Your task to perform on an android device: What's the weather? Image 0: 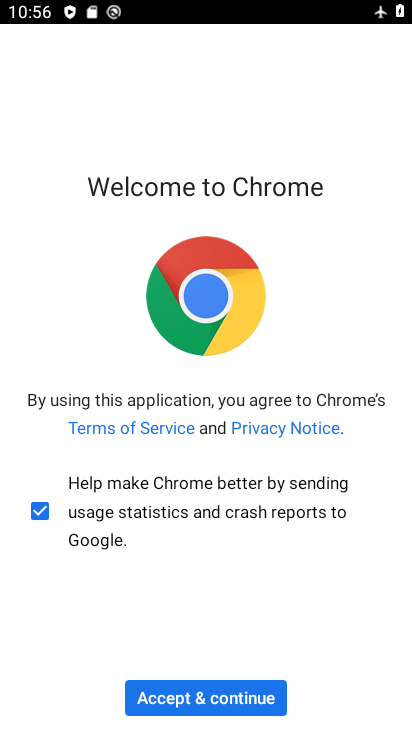
Step 0: press home button
Your task to perform on an android device: What's the weather? Image 1: 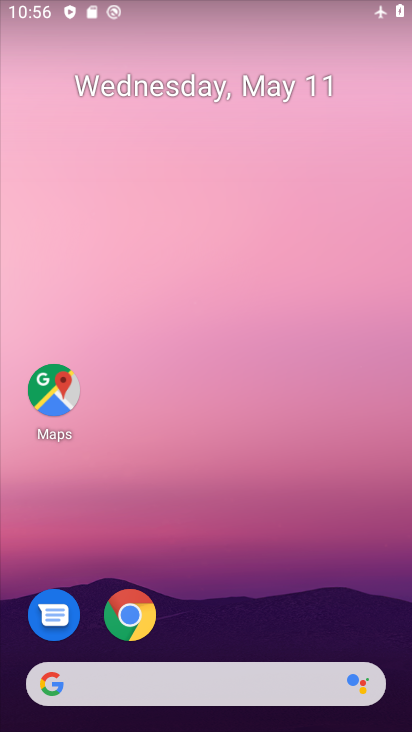
Step 1: click (209, 684)
Your task to perform on an android device: What's the weather? Image 2: 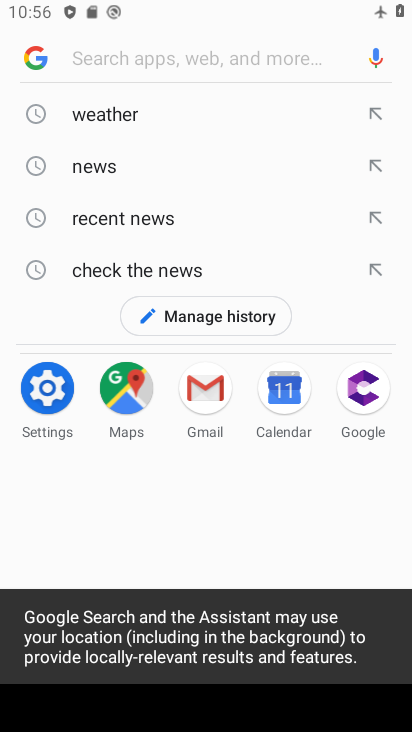
Step 2: click (117, 115)
Your task to perform on an android device: What's the weather? Image 3: 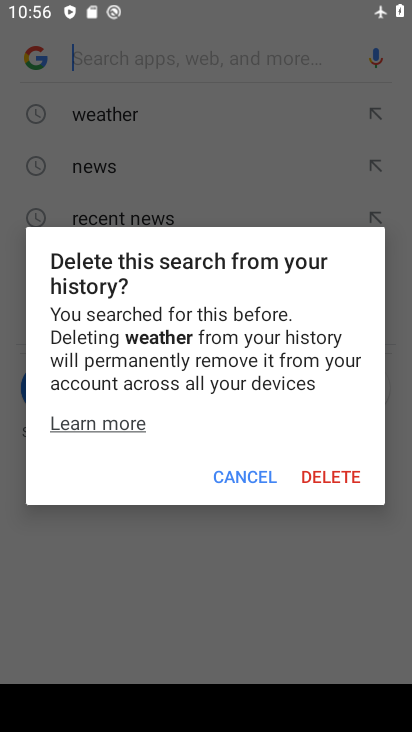
Step 3: click (252, 473)
Your task to perform on an android device: What's the weather? Image 4: 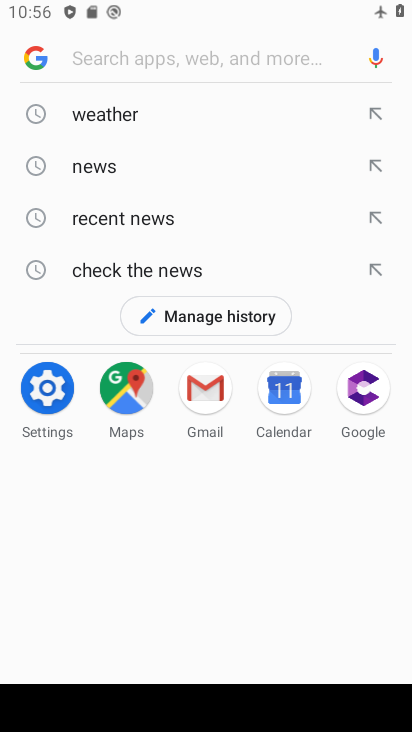
Step 4: click (116, 111)
Your task to perform on an android device: What's the weather? Image 5: 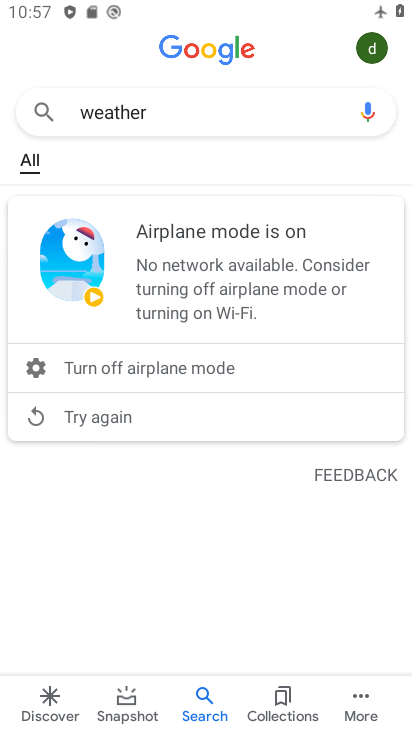
Step 5: press home button
Your task to perform on an android device: What's the weather? Image 6: 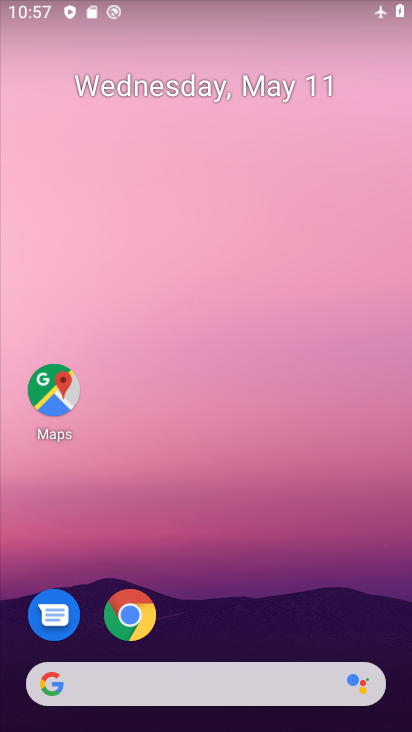
Step 6: click (165, 675)
Your task to perform on an android device: What's the weather? Image 7: 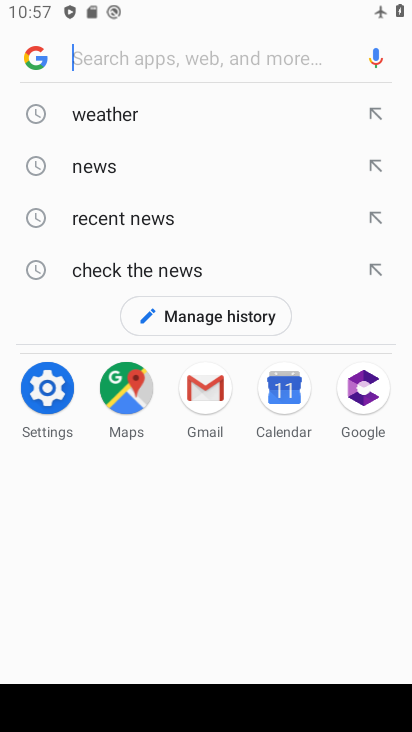
Step 7: click (98, 118)
Your task to perform on an android device: What's the weather? Image 8: 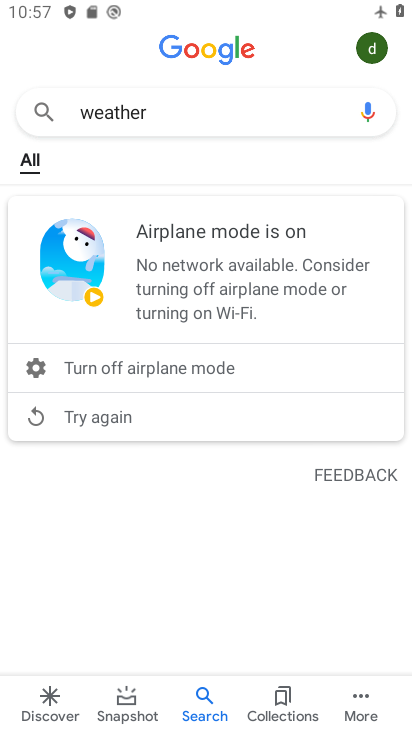
Step 8: task complete